Your task to perform on an android device: create a new album in the google photos Image 0: 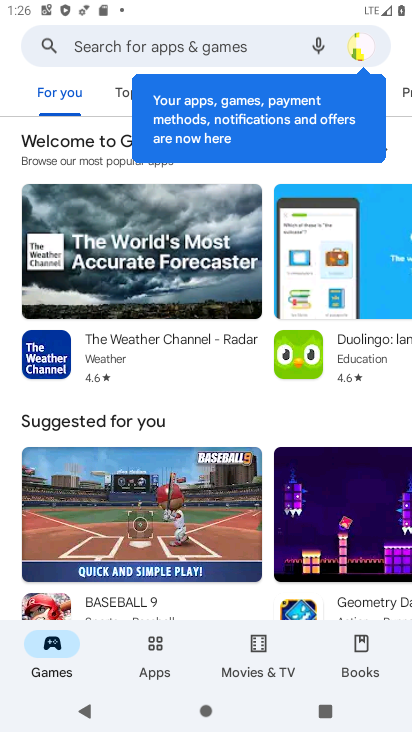
Step 0: press home button
Your task to perform on an android device: create a new album in the google photos Image 1: 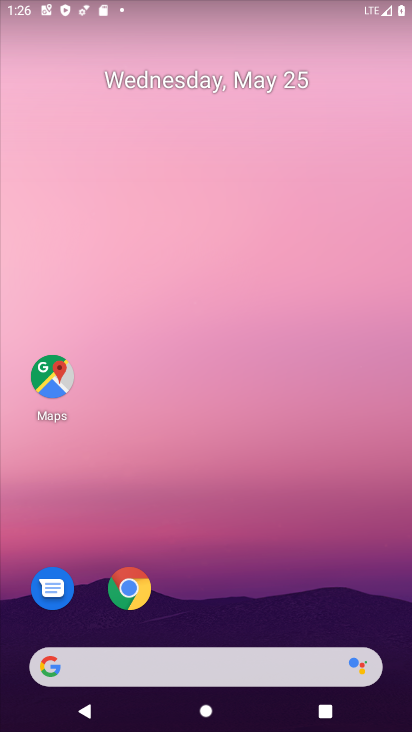
Step 1: drag from (362, 617) to (374, 5)
Your task to perform on an android device: create a new album in the google photos Image 2: 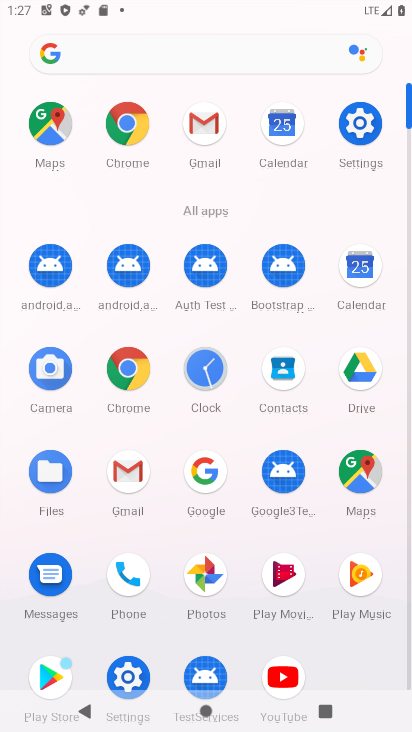
Step 2: click (201, 581)
Your task to perform on an android device: create a new album in the google photos Image 3: 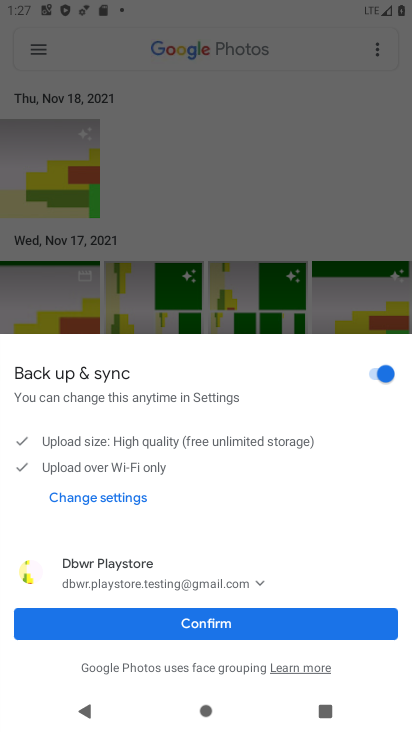
Step 3: click (210, 626)
Your task to perform on an android device: create a new album in the google photos Image 4: 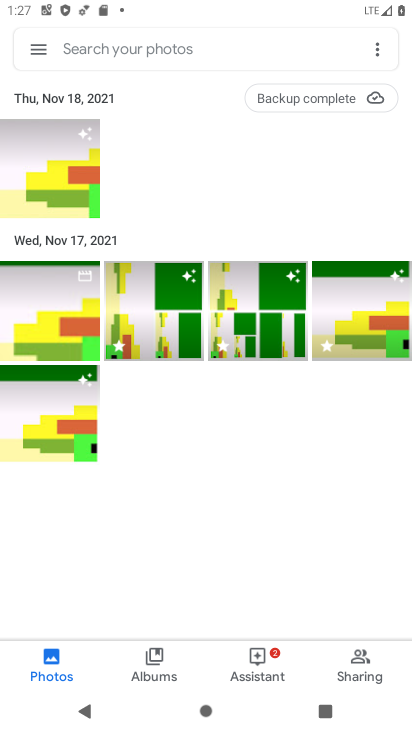
Step 4: click (153, 293)
Your task to perform on an android device: create a new album in the google photos Image 5: 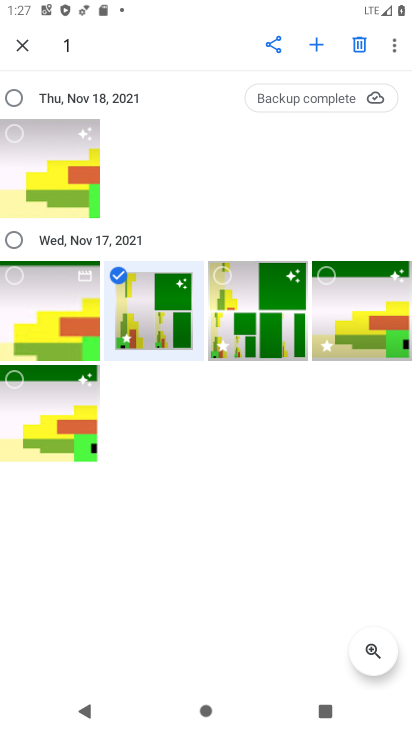
Step 5: click (248, 298)
Your task to perform on an android device: create a new album in the google photos Image 6: 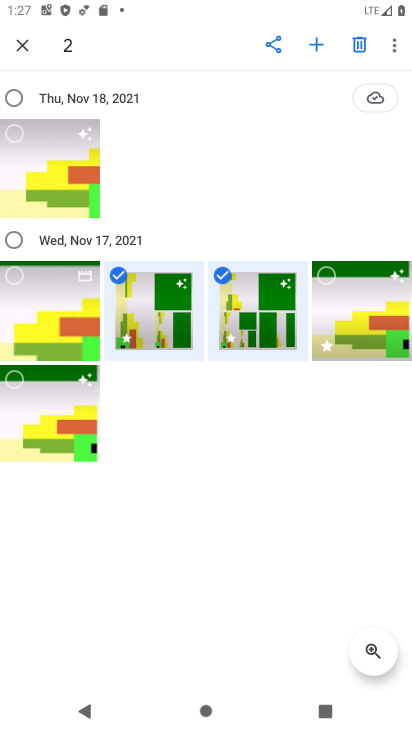
Step 6: click (317, 43)
Your task to perform on an android device: create a new album in the google photos Image 7: 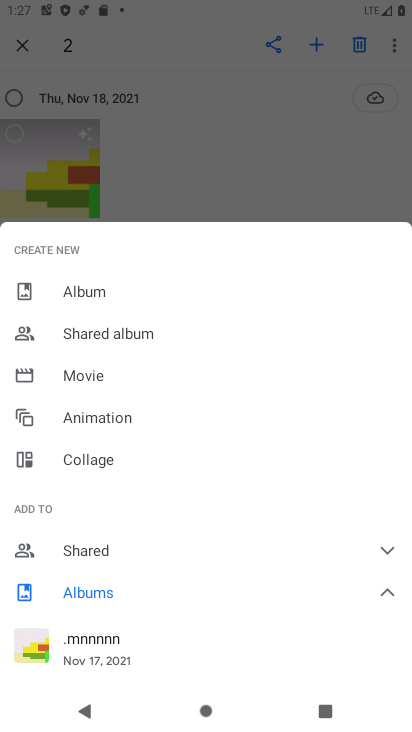
Step 7: click (75, 296)
Your task to perform on an android device: create a new album in the google photos Image 8: 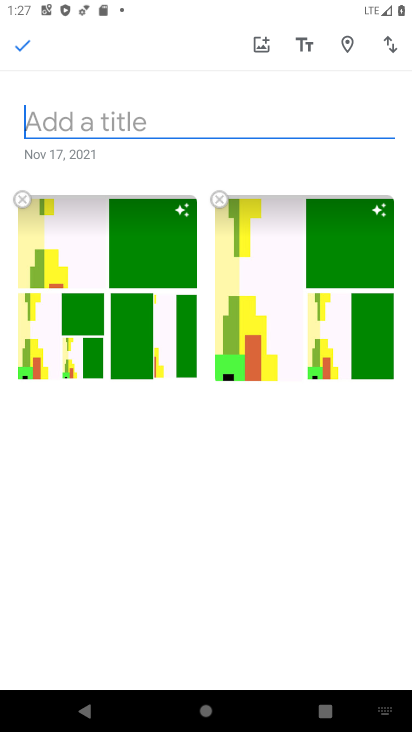
Step 8: type "new 1"
Your task to perform on an android device: create a new album in the google photos Image 9: 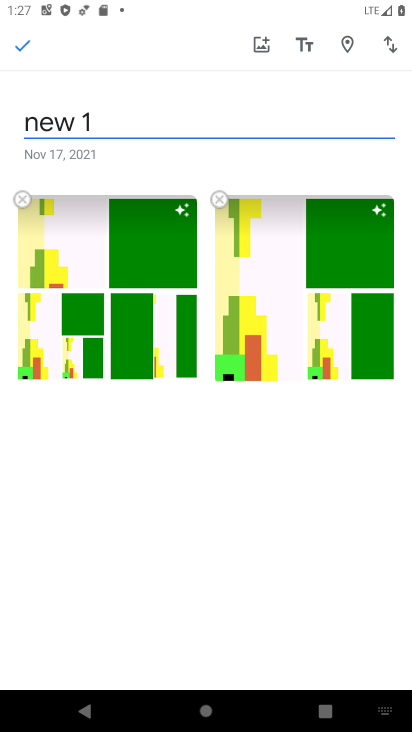
Step 9: click (20, 48)
Your task to perform on an android device: create a new album in the google photos Image 10: 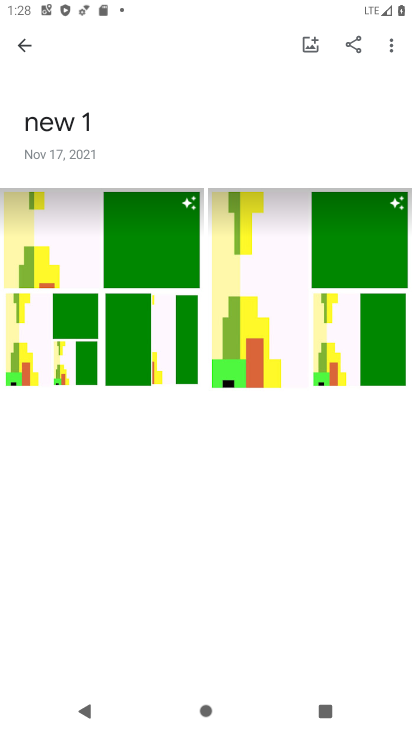
Step 10: task complete